Your task to perform on an android device: Add sony triple a to the cart on costco Image 0: 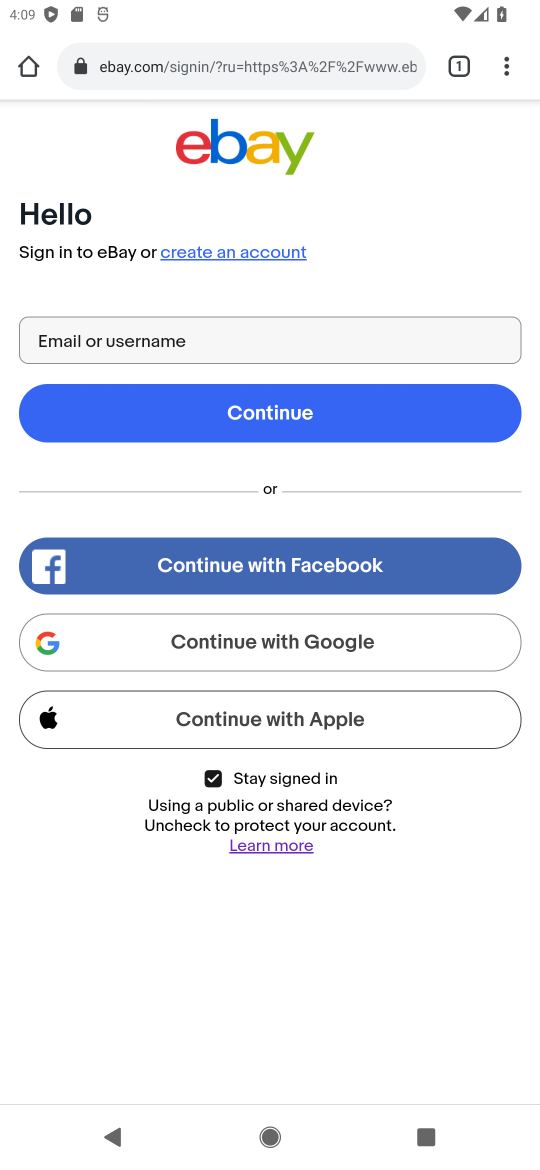
Step 0: click (234, 72)
Your task to perform on an android device: Add sony triple a to the cart on costco Image 1: 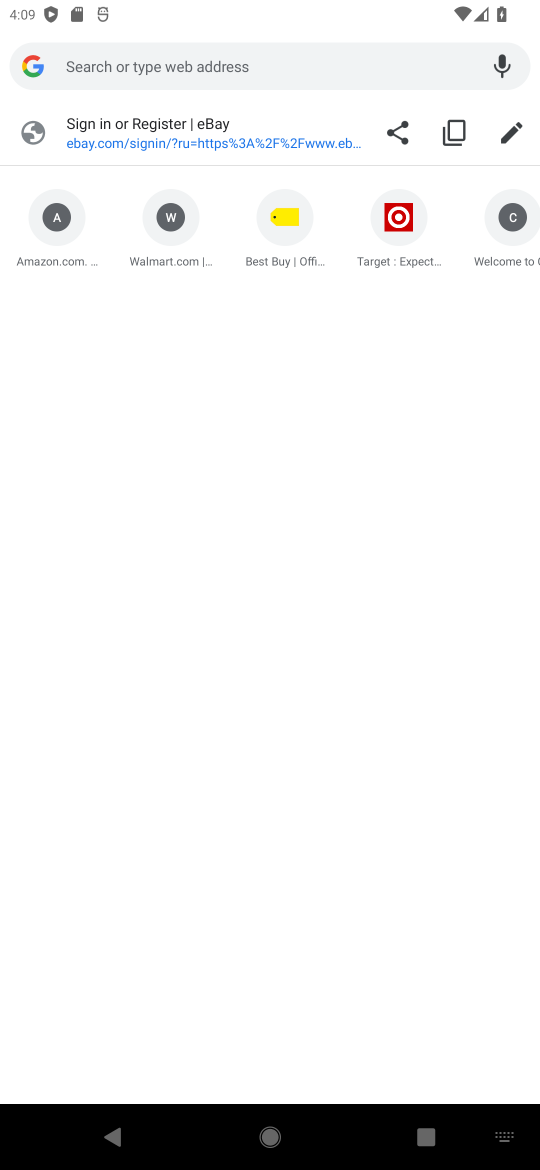
Step 1: type "costco"
Your task to perform on an android device: Add sony triple a to the cart on costco Image 2: 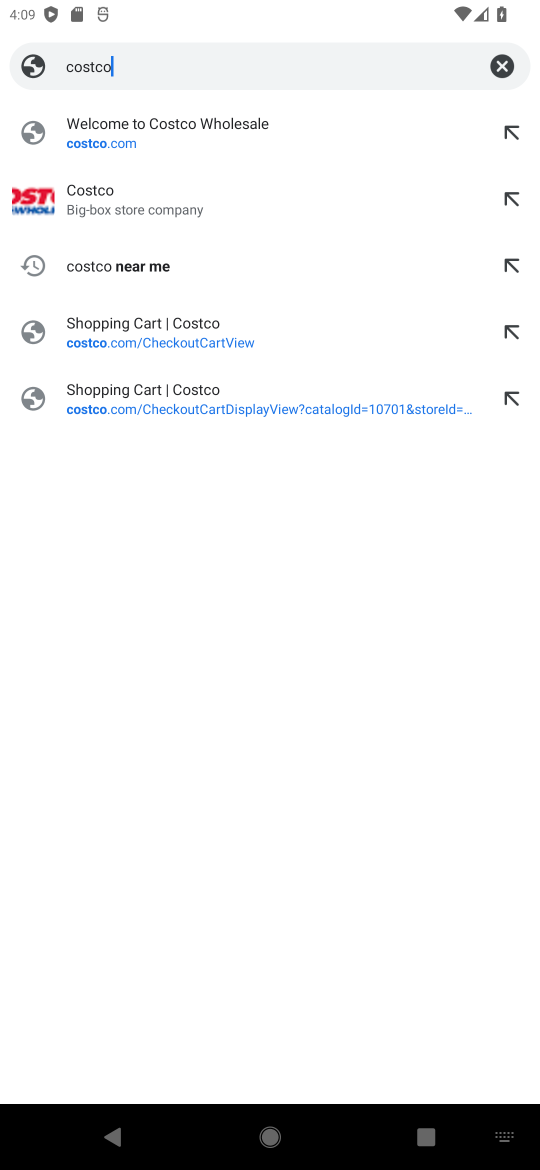
Step 2: press enter
Your task to perform on an android device: Add sony triple a to the cart on costco Image 3: 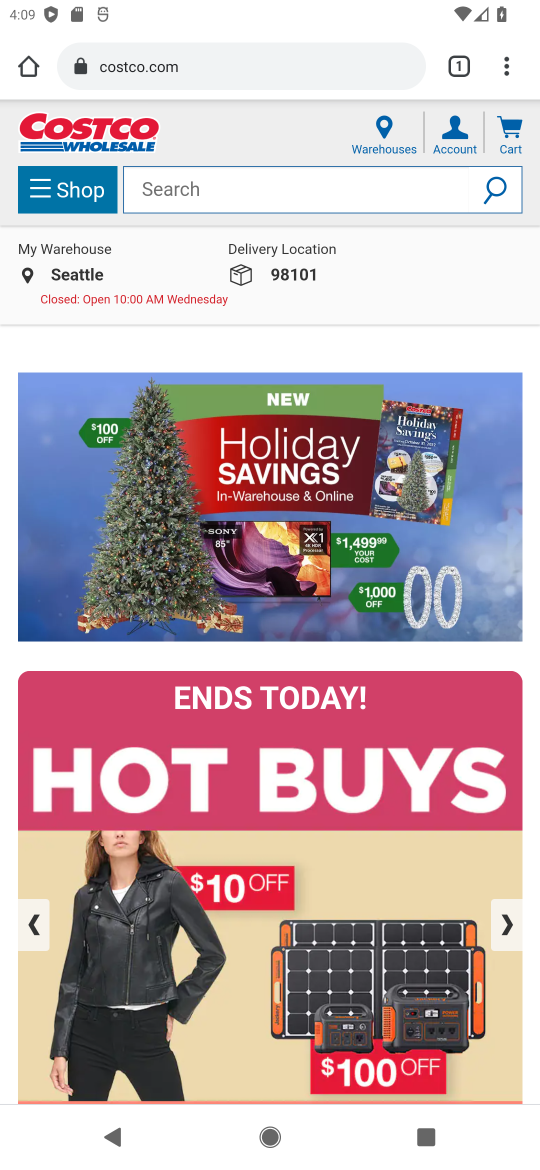
Step 3: click (195, 189)
Your task to perform on an android device: Add sony triple a to the cart on costco Image 4: 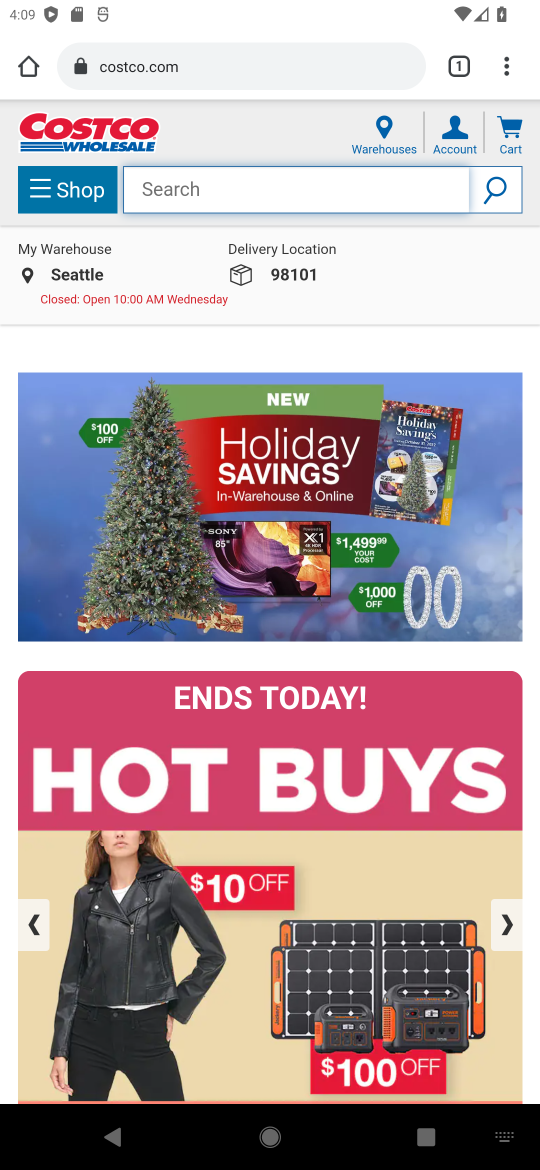
Step 4: type "sony triple a"
Your task to perform on an android device: Add sony triple a to the cart on costco Image 5: 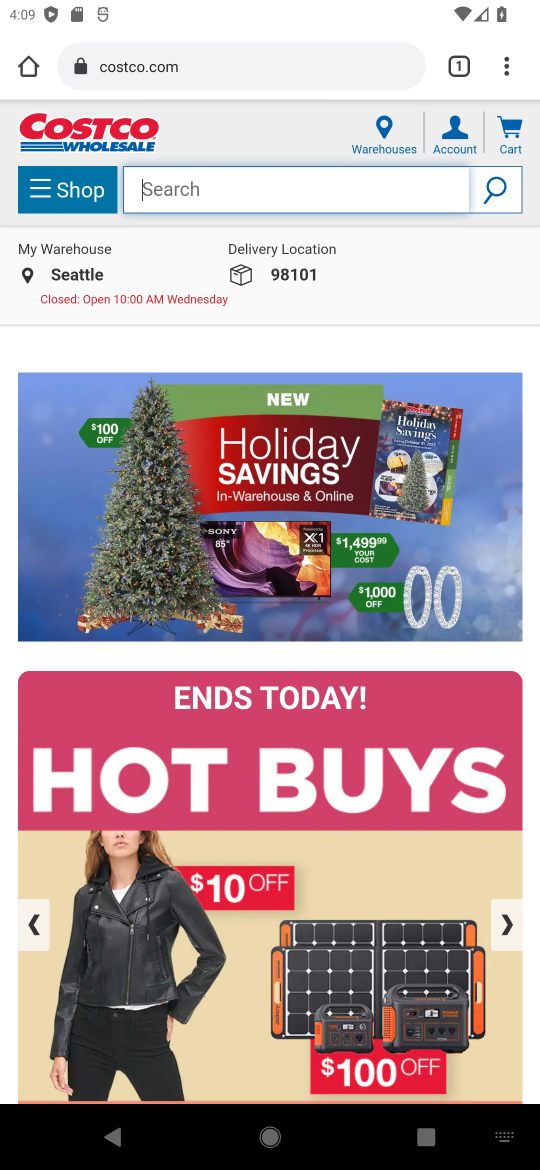
Step 5: press enter
Your task to perform on an android device: Add sony triple a to the cart on costco Image 6: 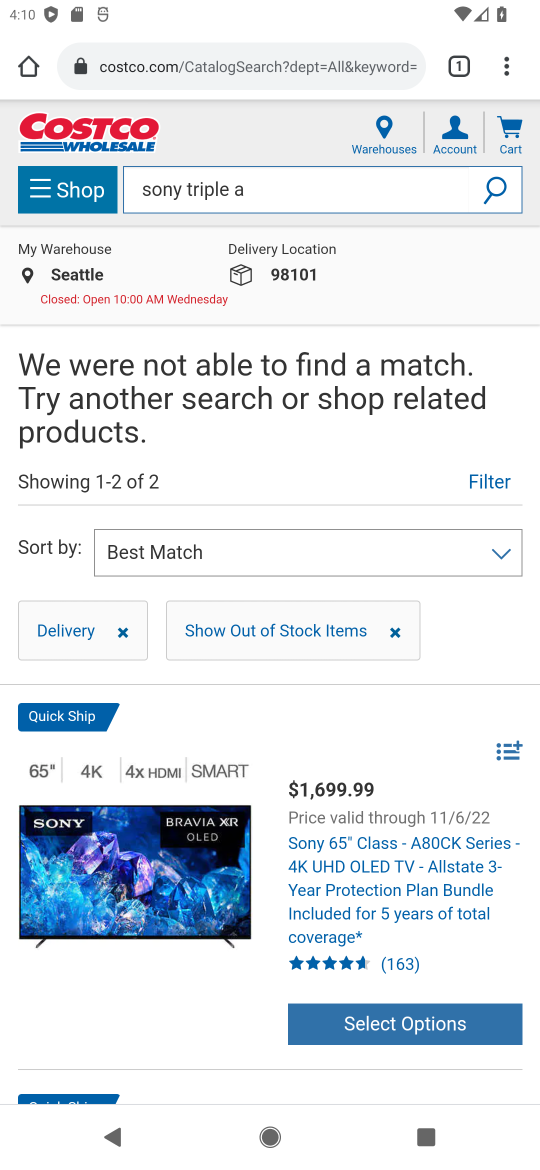
Step 6: task complete